Your task to perform on an android device: Show the shopping cart on costco.com. Add "dell xps" to the cart on costco.com, then select checkout. Image 0: 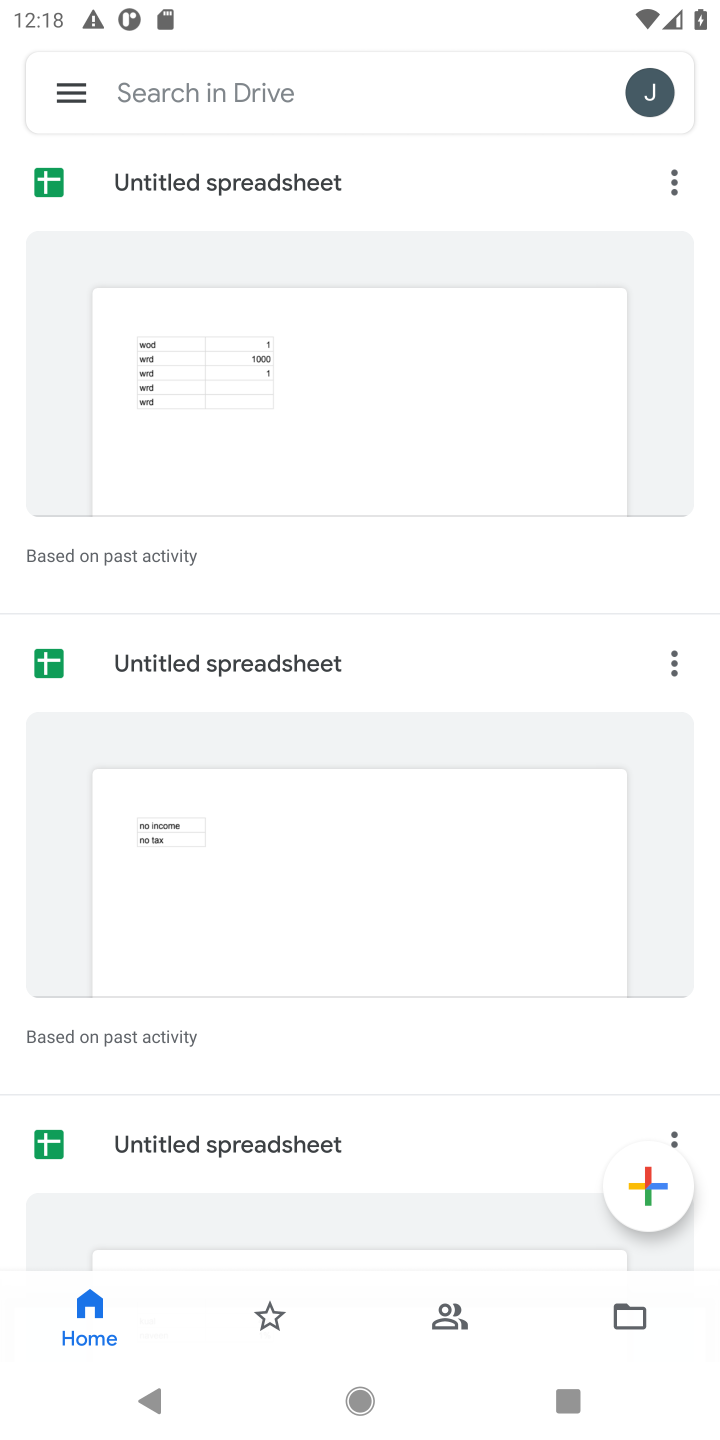
Step 0: press home button
Your task to perform on an android device: Show the shopping cart on costco.com. Add "dell xps" to the cart on costco.com, then select checkout. Image 1: 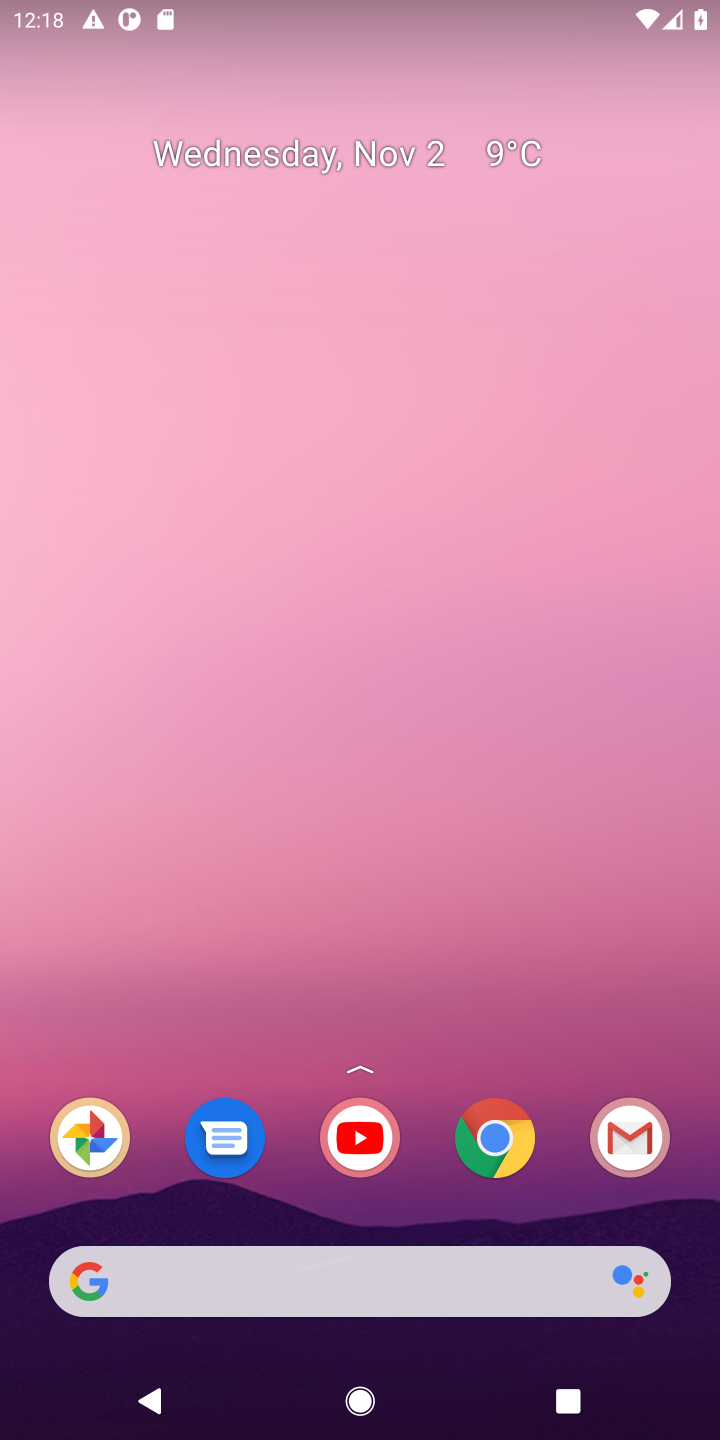
Step 1: click (425, 1272)
Your task to perform on an android device: Show the shopping cart on costco.com. Add "dell xps" to the cart on costco.com, then select checkout. Image 2: 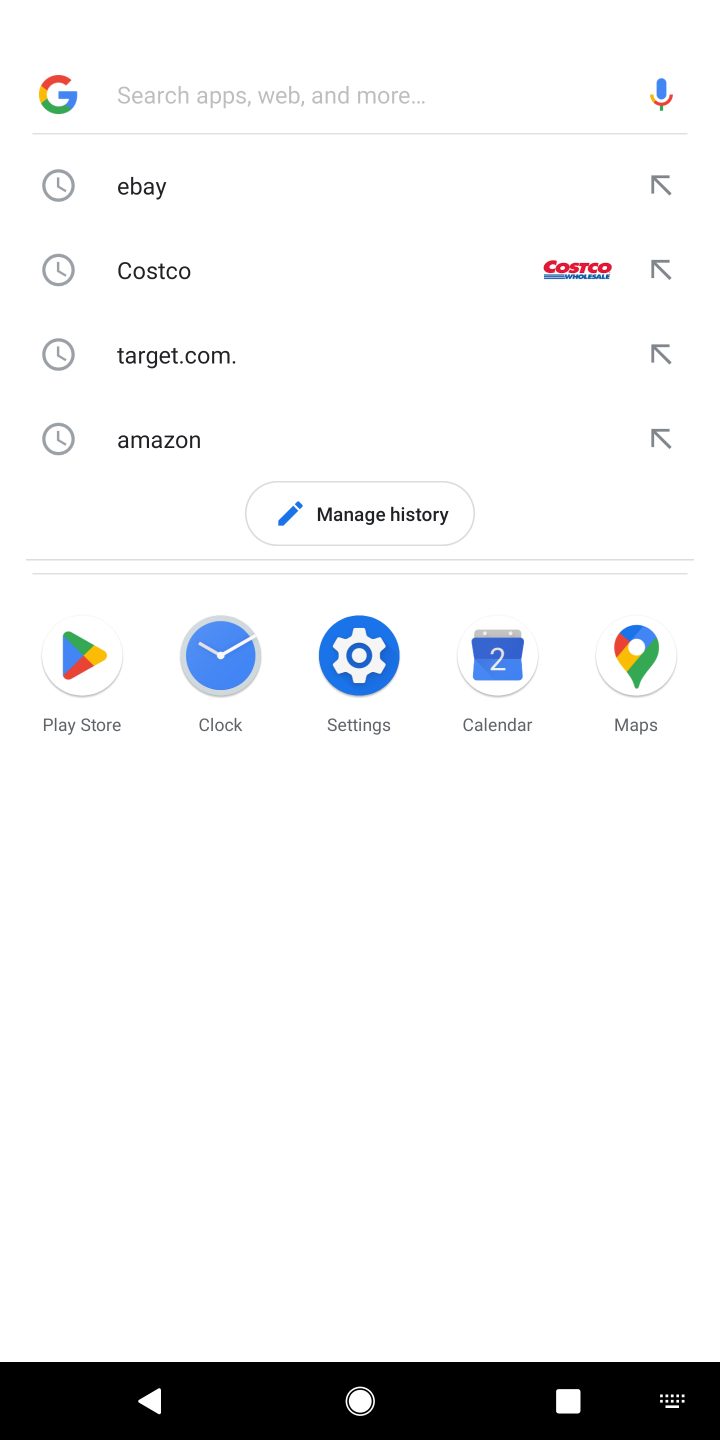
Step 2: click (154, 285)
Your task to perform on an android device: Show the shopping cart on costco.com. Add "dell xps" to the cart on costco.com, then select checkout. Image 3: 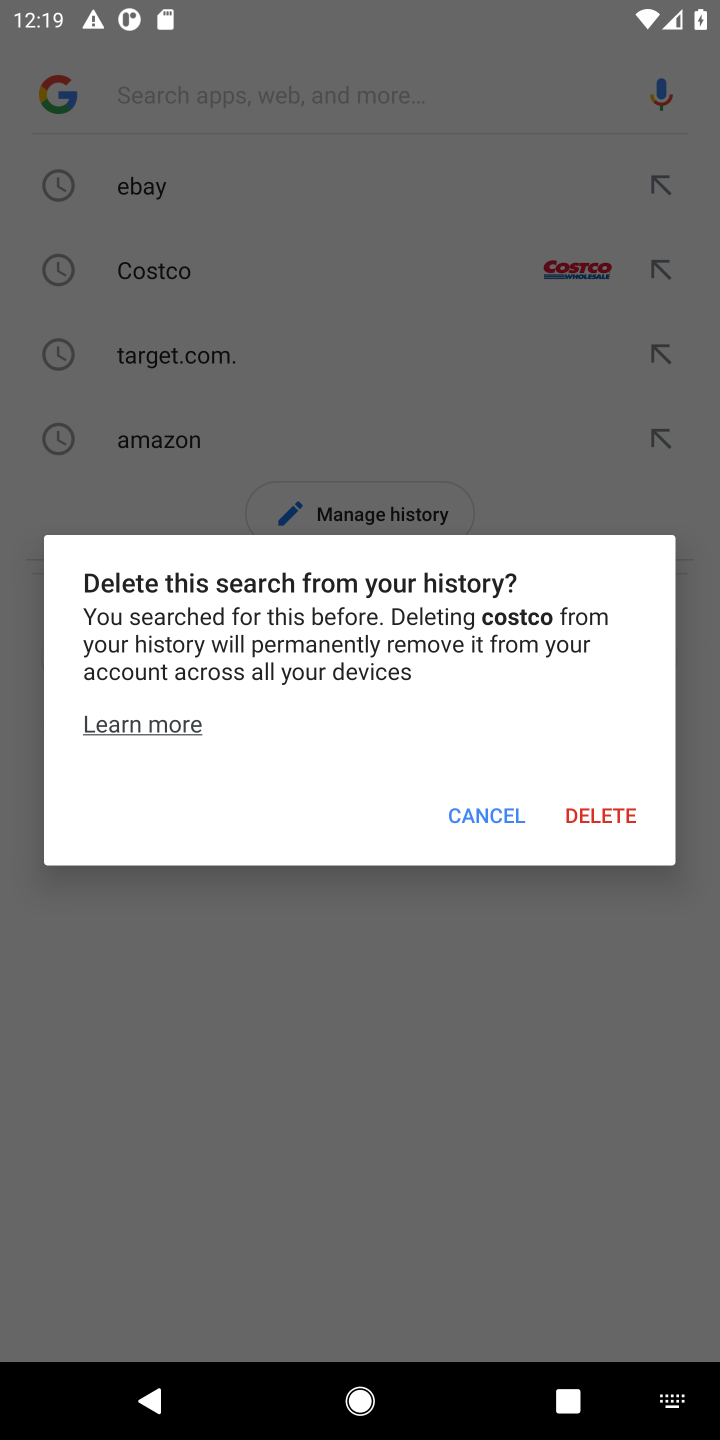
Step 3: click (491, 804)
Your task to perform on an android device: Show the shopping cart on costco.com. Add "dell xps" to the cart on costco.com, then select checkout. Image 4: 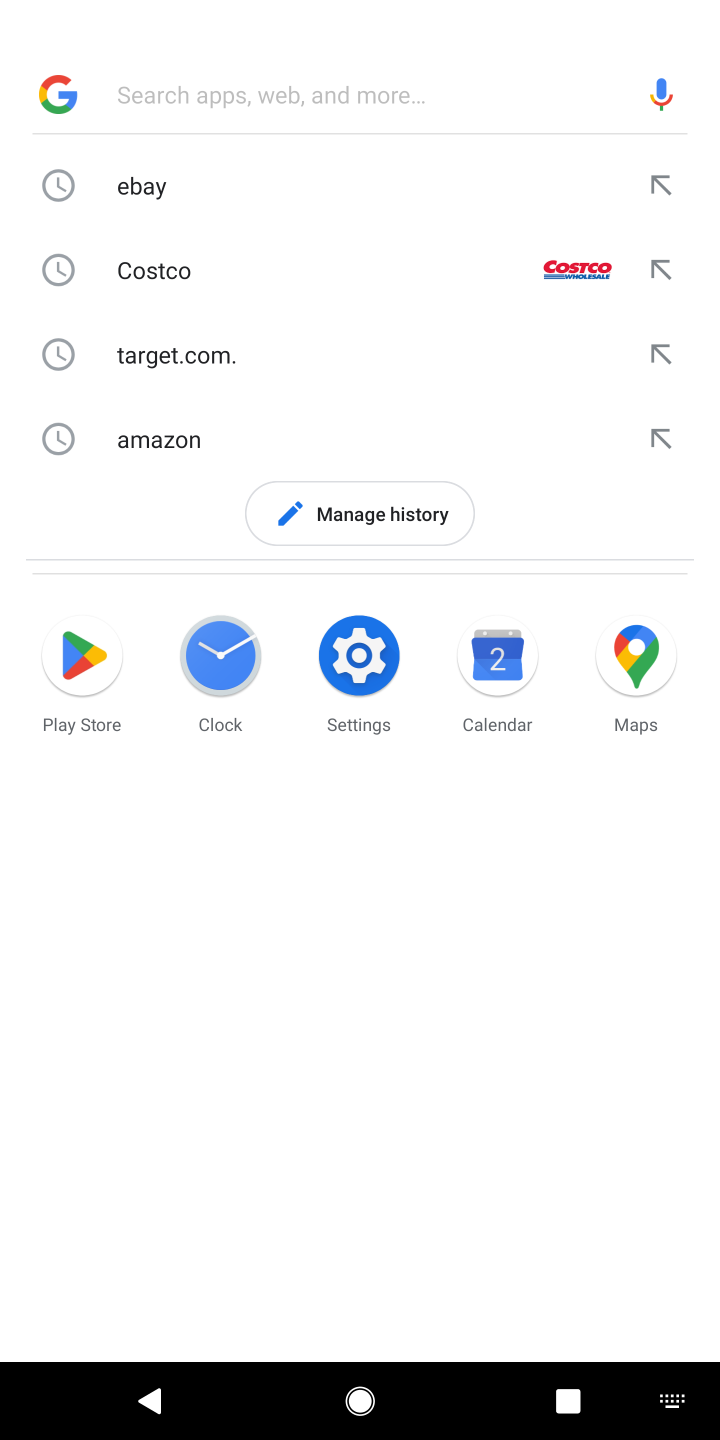
Step 4: click (192, 279)
Your task to perform on an android device: Show the shopping cart on costco.com. Add "dell xps" to the cart on costco.com, then select checkout. Image 5: 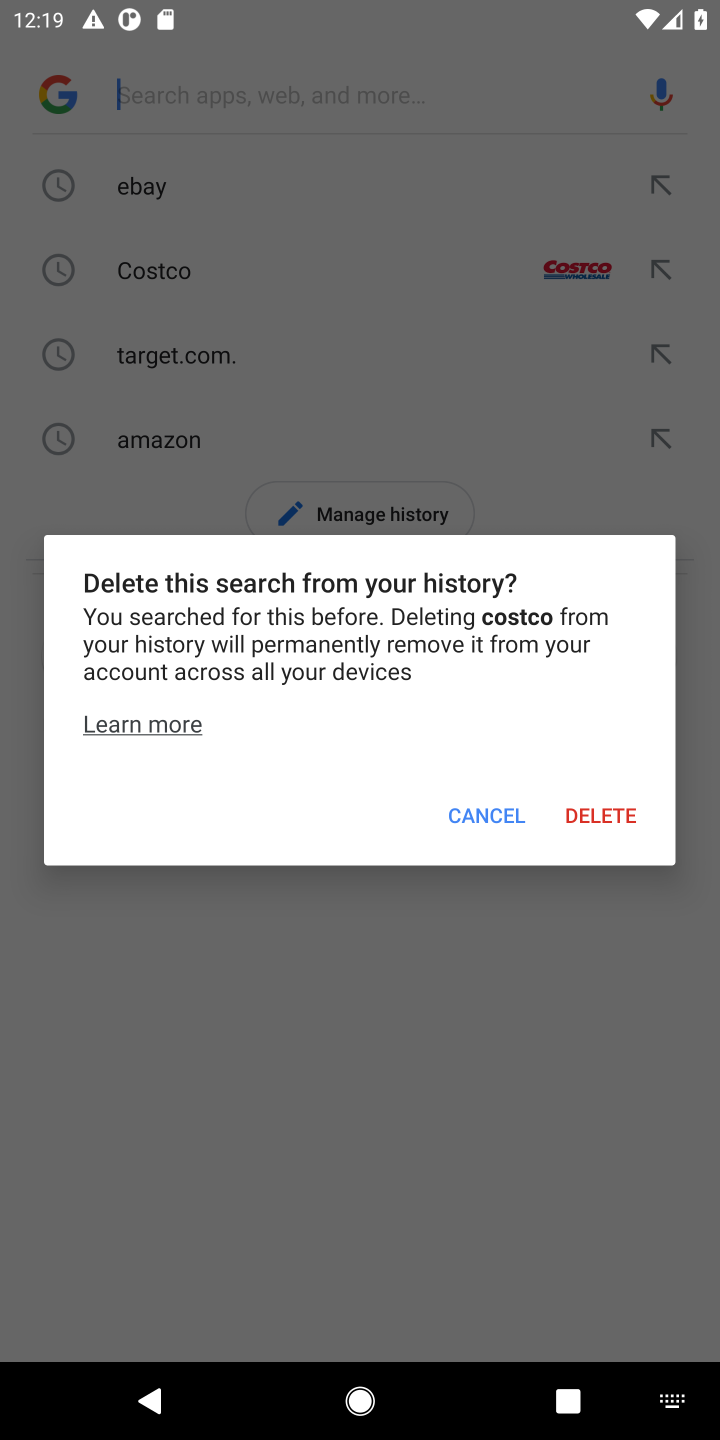
Step 5: click (446, 821)
Your task to perform on an android device: Show the shopping cart on costco.com. Add "dell xps" to the cart on costco.com, then select checkout. Image 6: 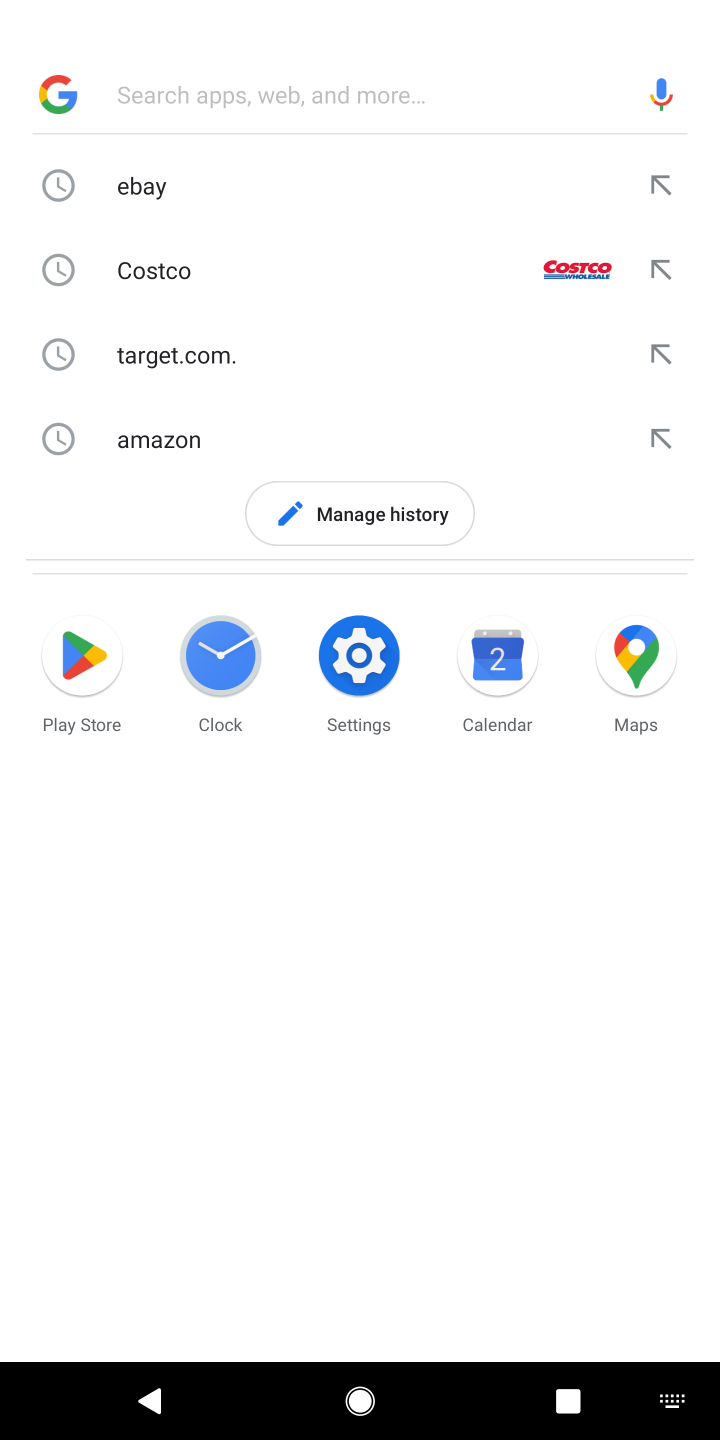
Step 6: click (207, 287)
Your task to perform on an android device: Show the shopping cart on costco.com. Add "dell xps" to the cart on costco.com, then select checkout. Image 7: 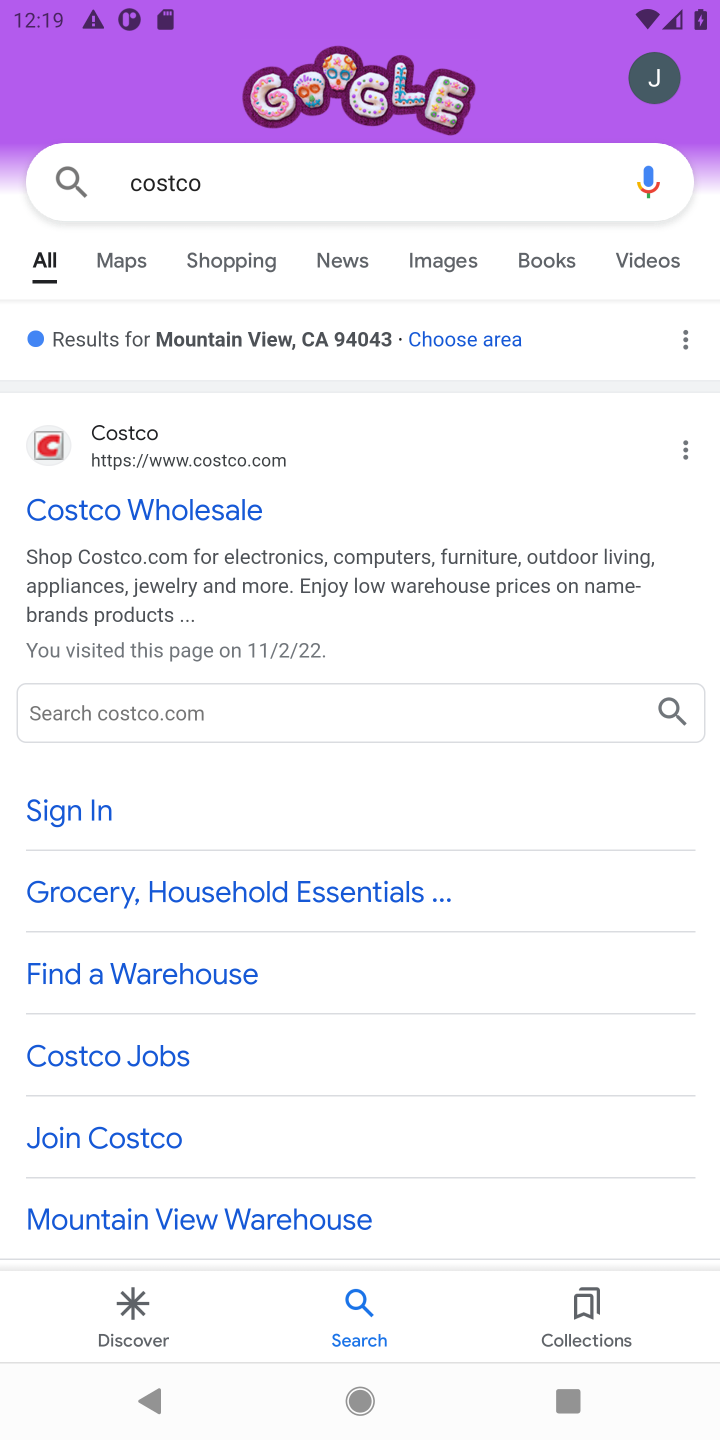
Step 7: click (178, 517)
Your task to perform on an android device: Show the shopping cart on costco.com. Add "dell xps" to the cart on costco.com, then select checkout. Image 8: 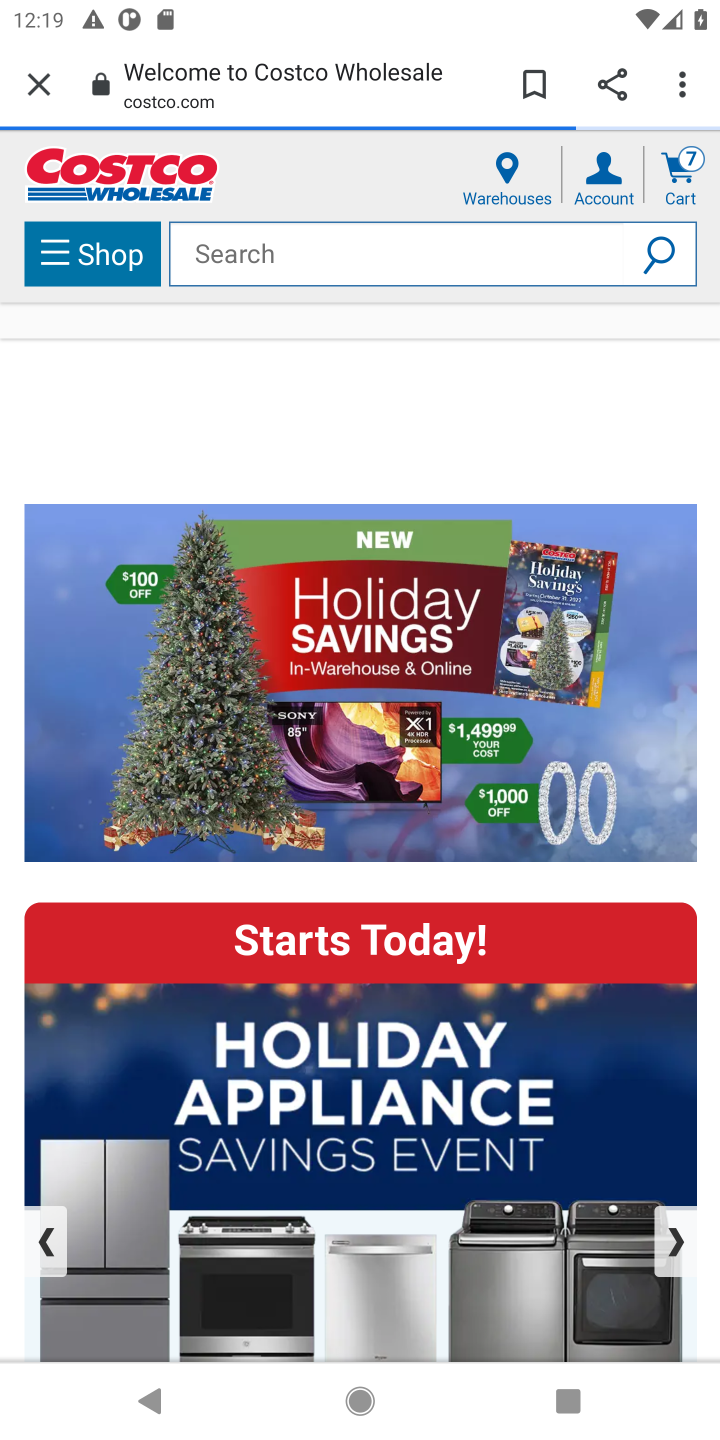
Step 8: click (416, 247)
Your task to perform on an android device: Show the shopping cart on costco.com. Add "dell xps" to the cart on costco.com, then select checkout. Image 9: 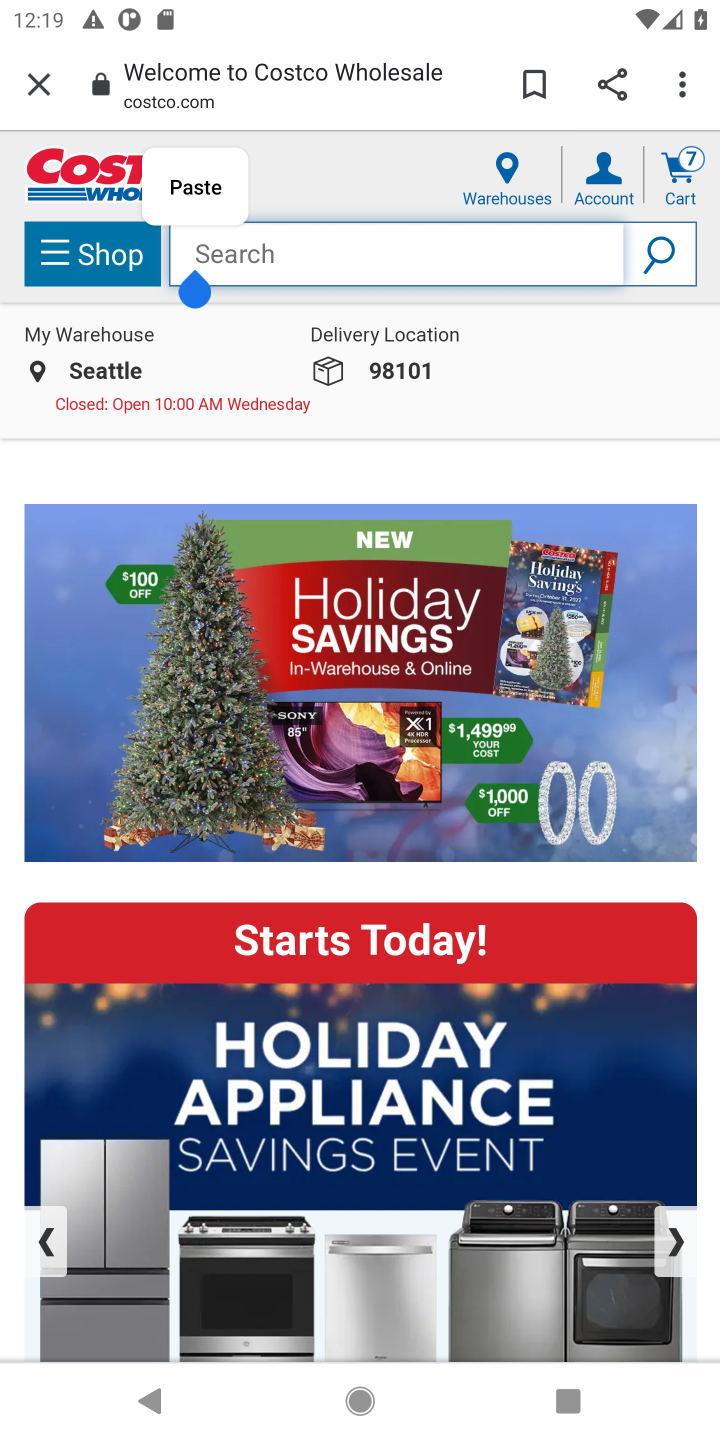
Step 9: type "dell xps"
Your task to perform on an android device: Show the shopping cart on costco.com. Add "dell xps" to the cart on costco.com, then select checkout. Image 10: 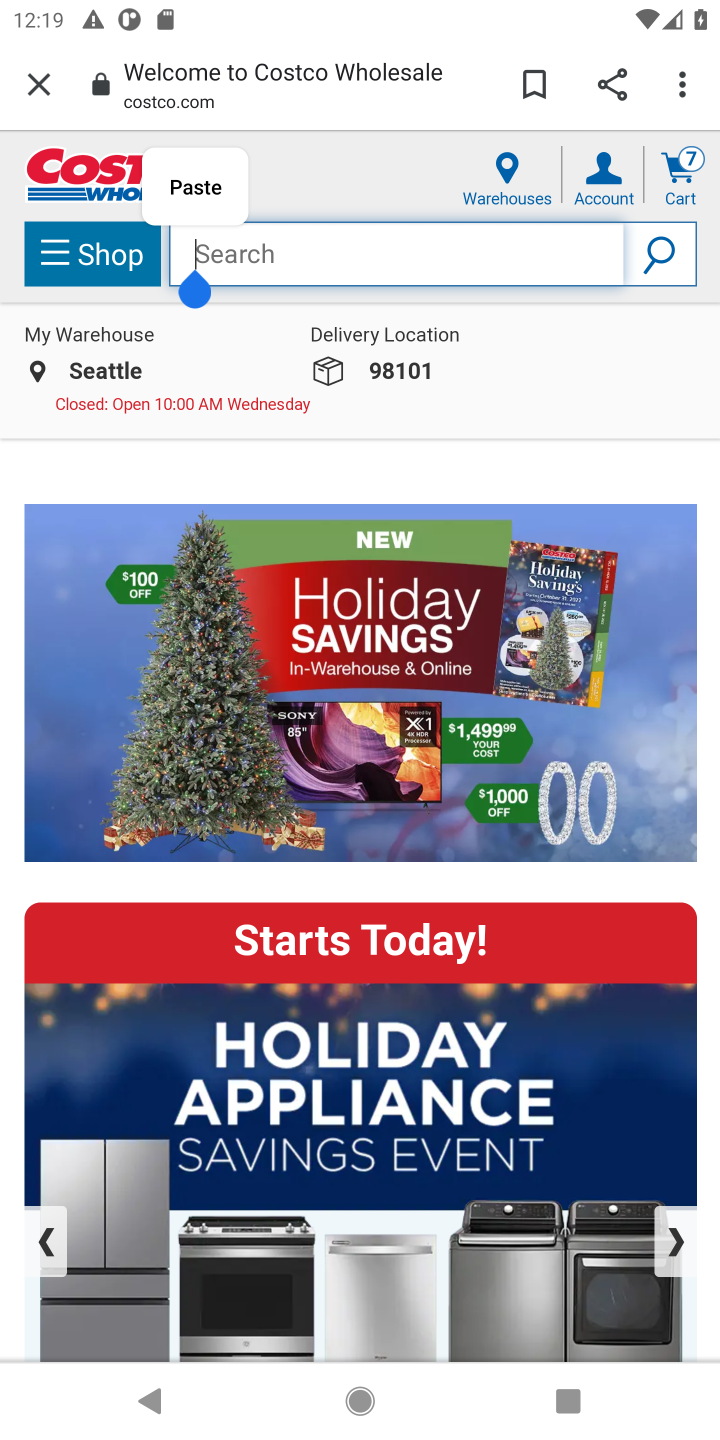
Step 10: click (298, 260)
Your task to perform on an android device: Show the shopping cart on costco.com. Add "dell xps" to the cart on costco.com, then select checkout. Image 11: 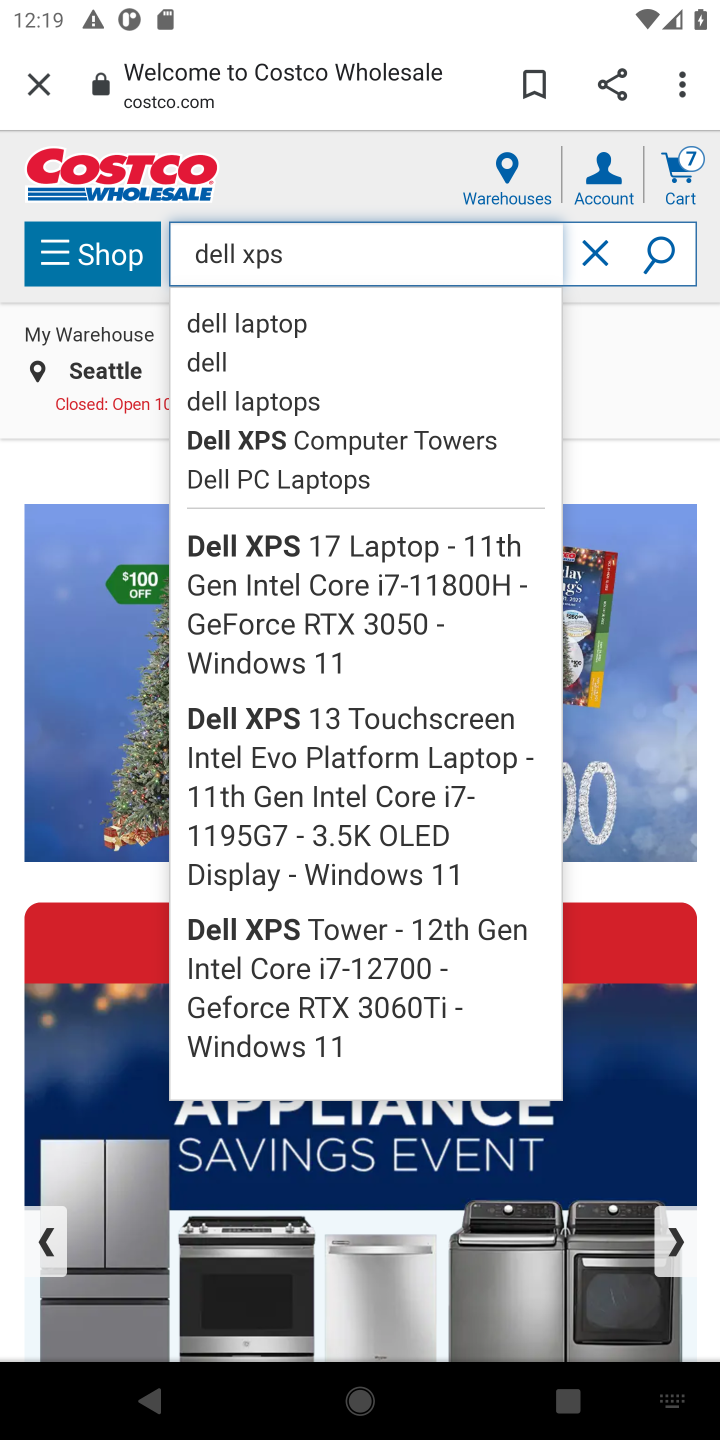
Step 11: click (349, 266)
Your task to perform on an android device: Show the shopping cart on costco.com. Add "dell xps" to the cart on costco.com, then select checkout. Image 12: 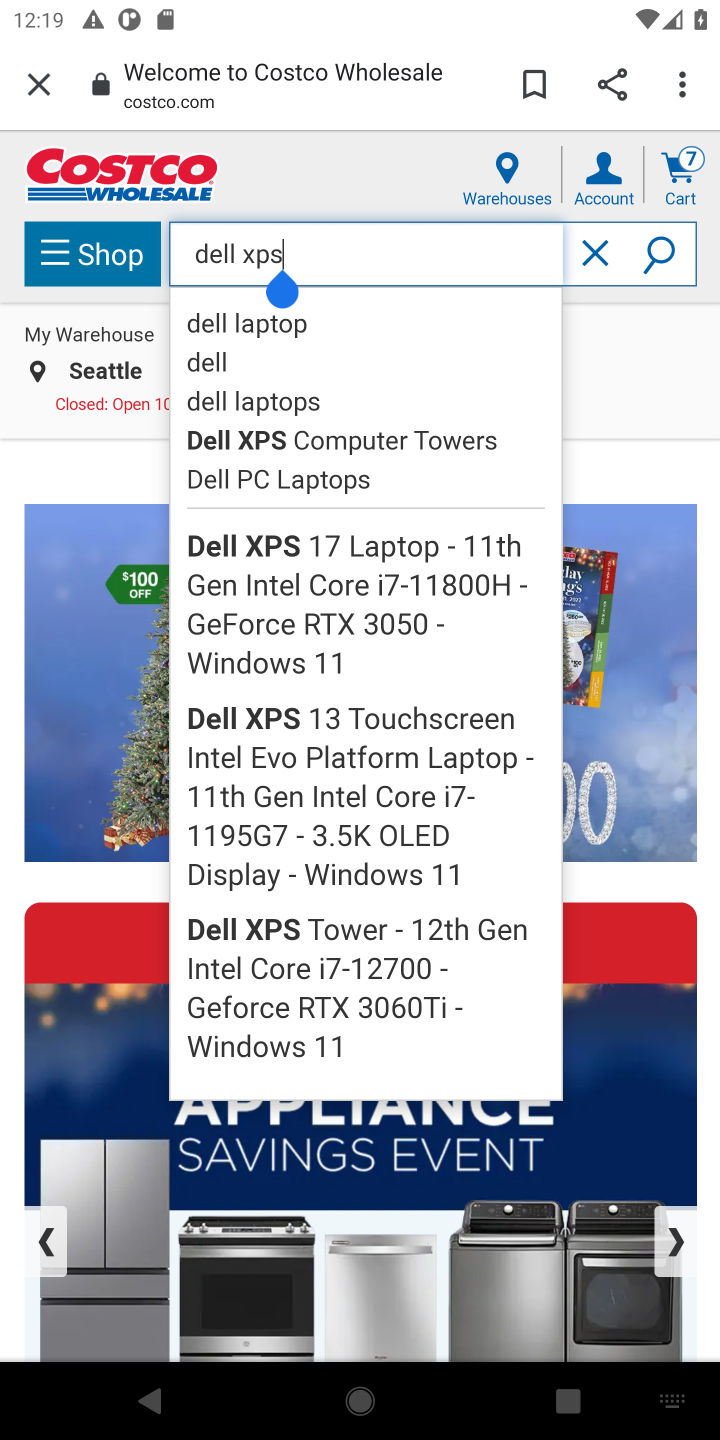
Step 12: click (650, 240)
Your task to perform on an android device: Show the shopping cart on costco.com. Add "dell xps" to the cart on costco.com, then select checkout. Image 13: 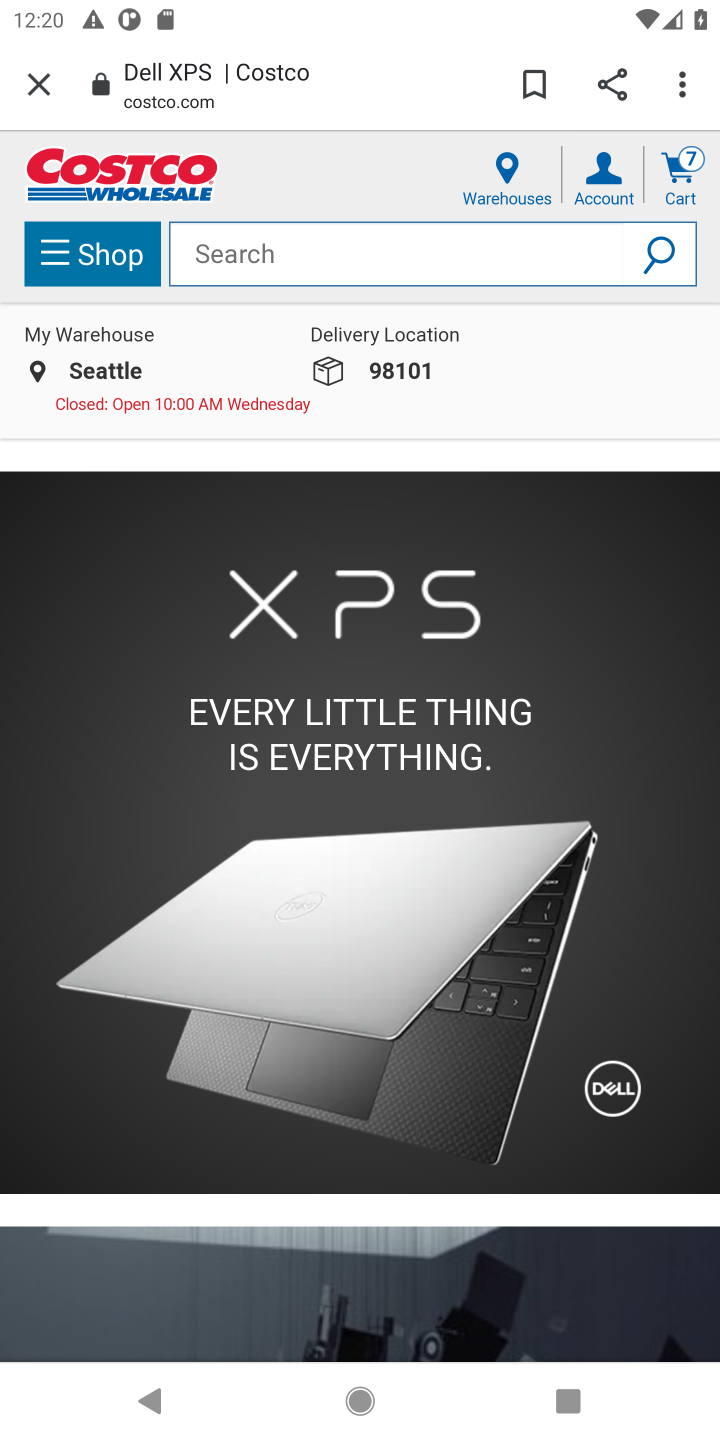
Step 13: drag from (443, 1117) to (395, 635)
Your task to perform on an android device: Show the shopping cart on costco.com. Add "dell xps" to the cart on costco.com, then select checkout. Image 14: 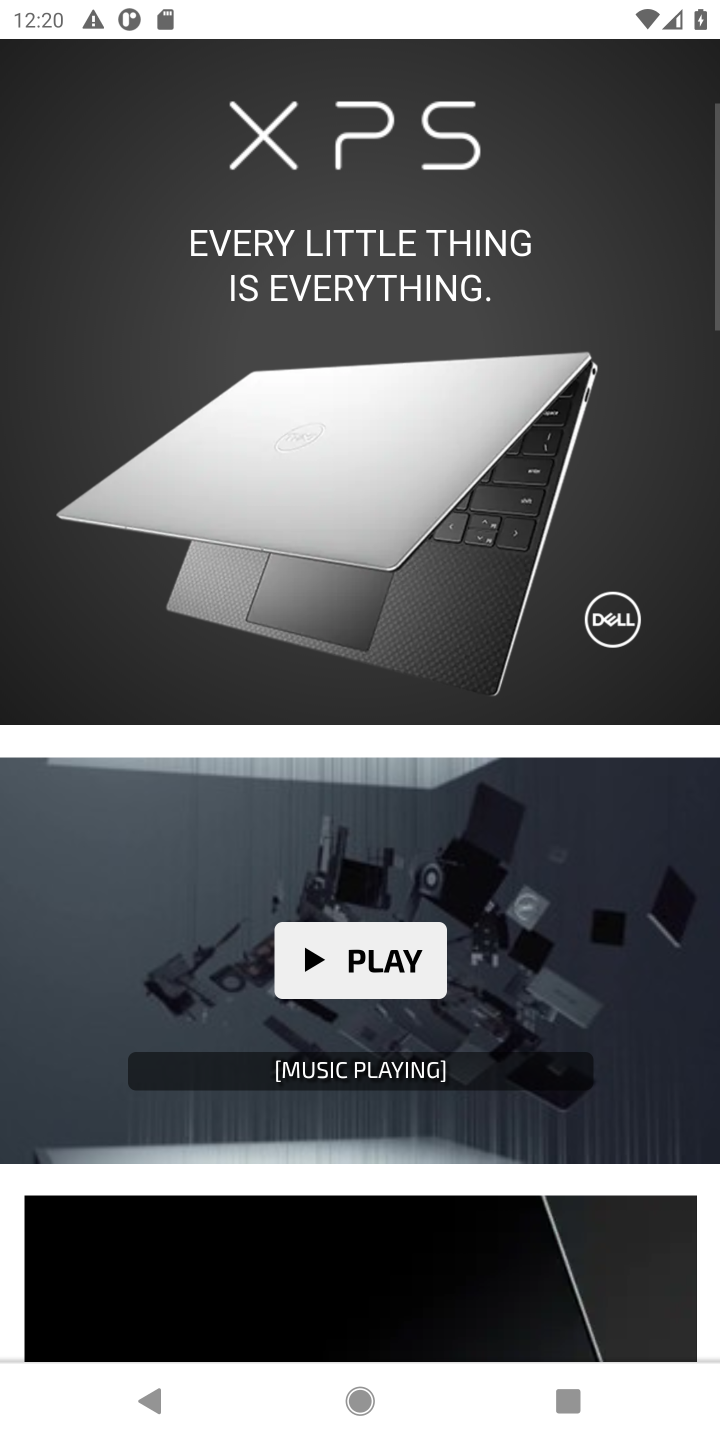
Step 14: drag from (475, 448) to (516, 1177)
Your task to perform on an android device: Show the shopping cart on costco.com. Add "dell xps" to the cart on costco.com, then select checkout. Image 15: 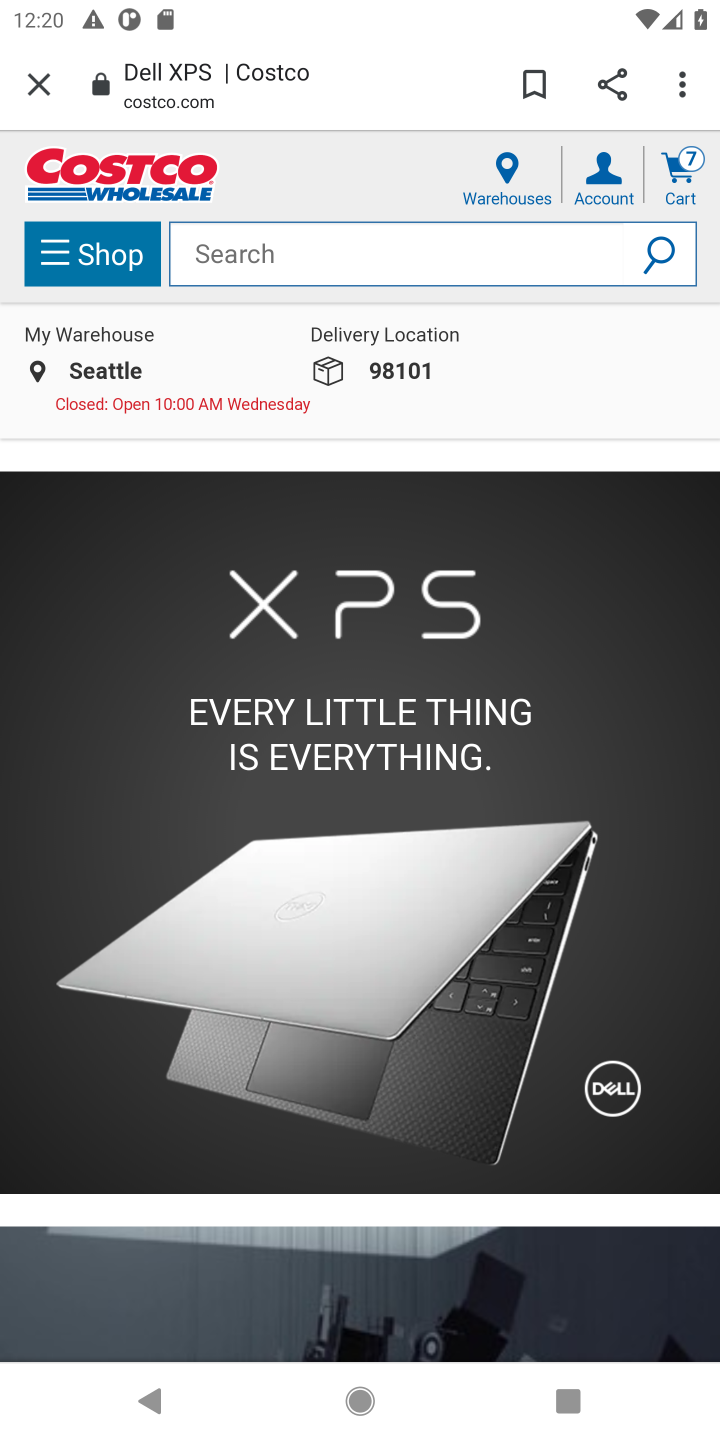
Step 15: click (682, 150)
Your task to perform on an android device: Show the shopping cart on costco.com. Add "dell xps" to the cart on costco.com, then select checkout. Image 16: 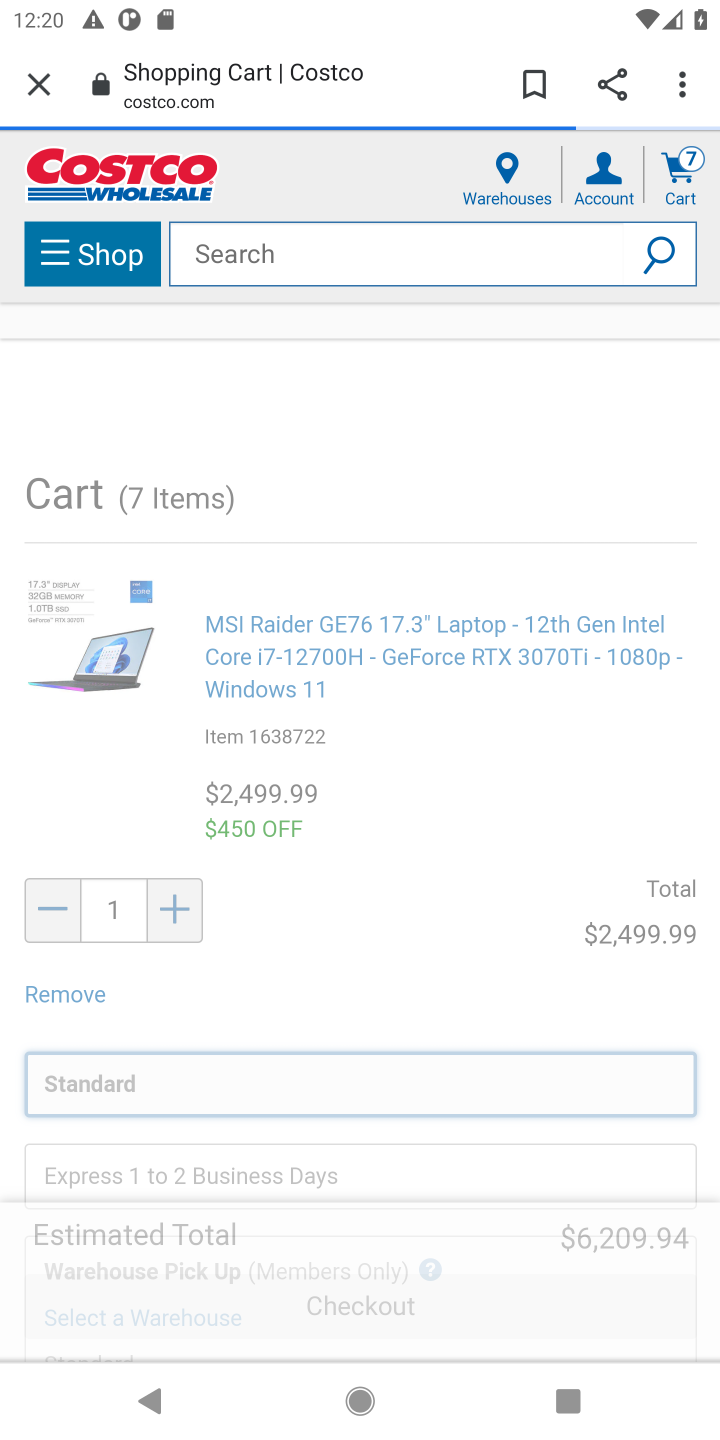
Step 16: drag from (348, 966) to (331, 664)
Your task to perform on an android device: Show the shopping cart on costco.com. Add "dell xps" to the cart on costco.com, then select checkout. Image 17: 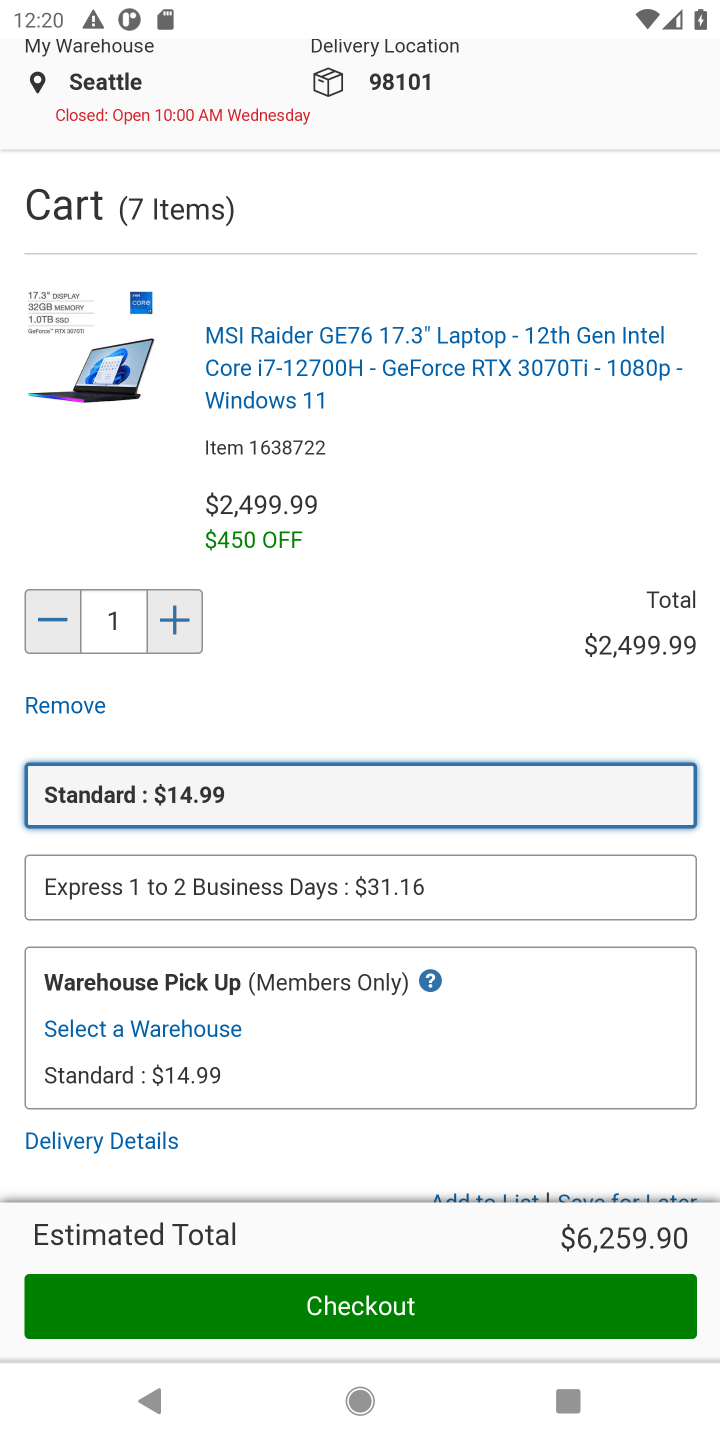
Step 17: click (402, 1326)
Your task to perform on an android device: Show the shopping cart on costco.com. Add "dell xps" to the cart on costco.com, then select checkout. Image 18: 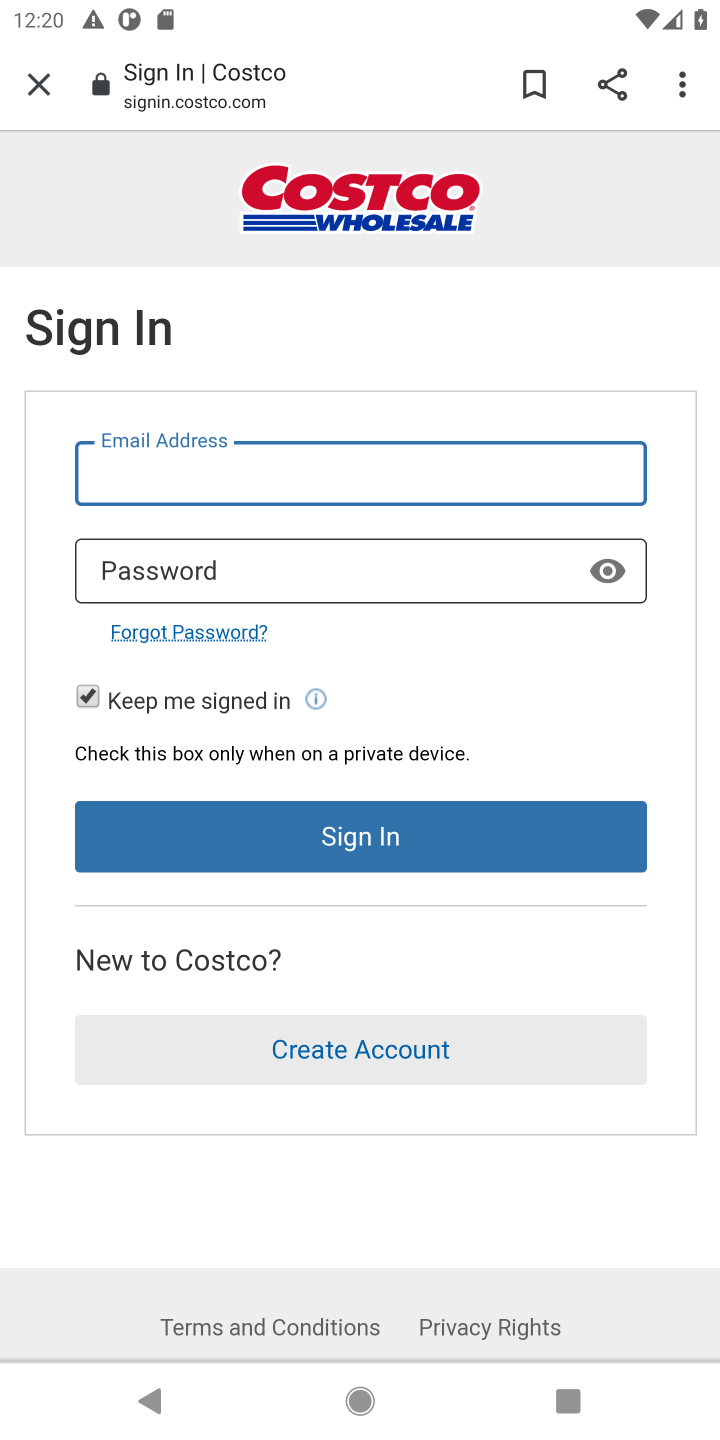
Step 18: task complete